Your task to perform on an android device: turn on airplane mode Image 0: 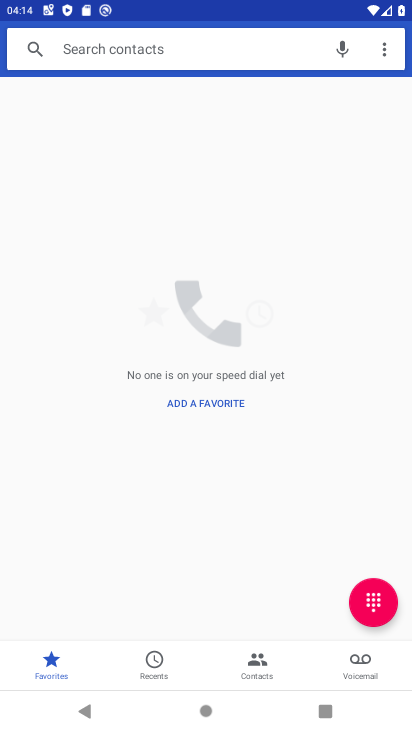
Step 0: press home button
Your task to perform on an android device: turn on airplane mode Image 1: 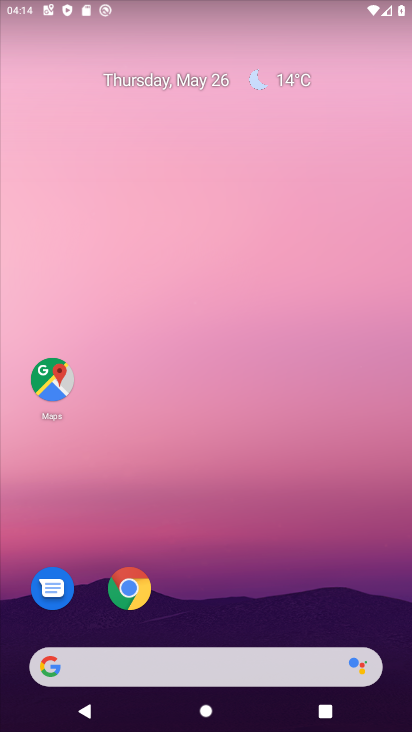
Step 1: drag from (268, 617) to (259, 135)
Your task to perform on an android device: turn on airplane mode Image 2: 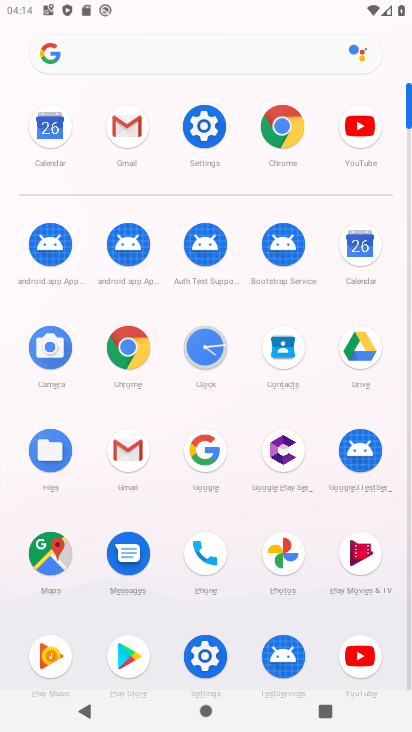
Step 2: click (199, 138)
Your task to perform on an android device: turn on airplane mode Image 3: 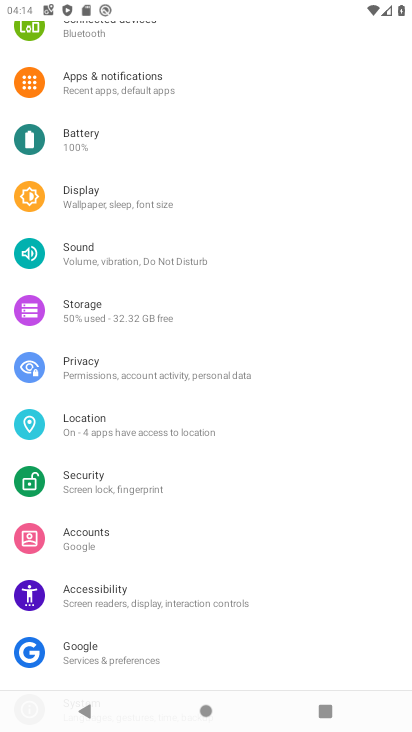
Step 3: drag from (176, 163) to (174, 410)
Your task to perform on an android device: turn on airplane mode Image 4: 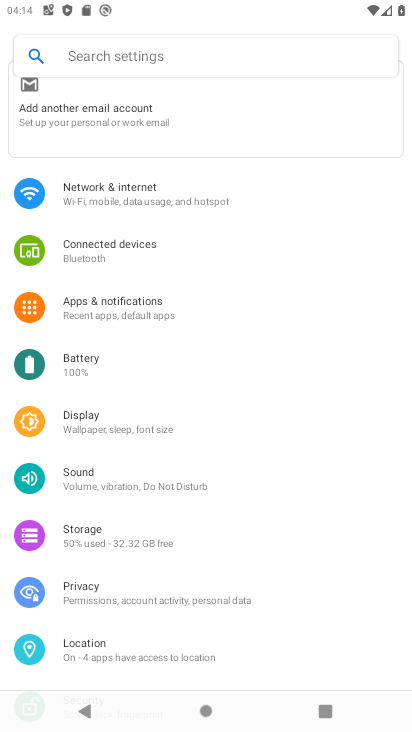
Step 4: click (188, 179)
Your task to perform on an android device: turn on airplane mode Image 5: 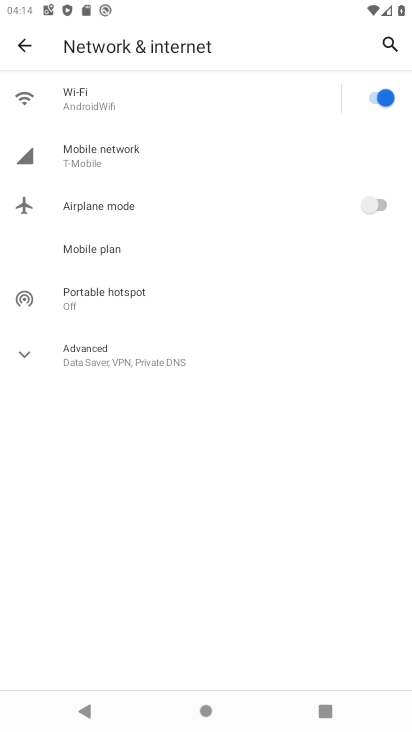
Step 5: task complete